Your task to perform on an android device: change the clock display to show seconds Image 0: 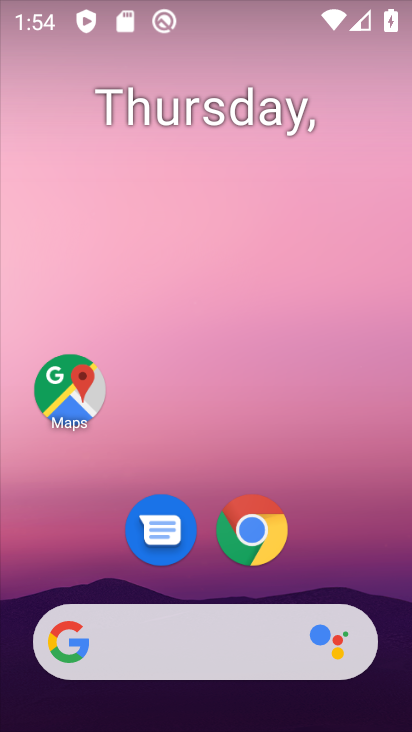
Step 0: drag from (210, 680) to (378, 0)
Your task to perform on an android device: change the clock display to show seconds Image 1: 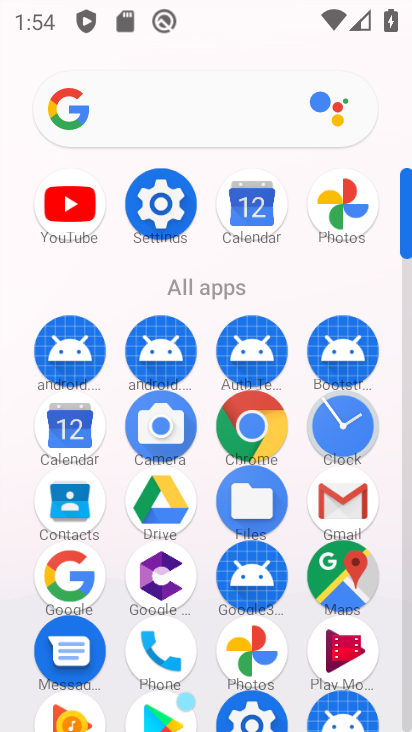
Step 1: click (335, 431)
Your task to perform on an android device: change the clock display to show seconds Image 2: 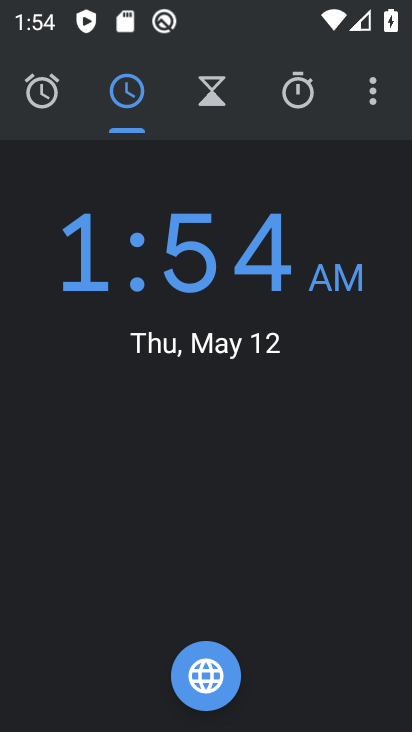
Step 2: click (378, 93)
Your task to perform on an android device: change the clock display to show seconds Image 3: 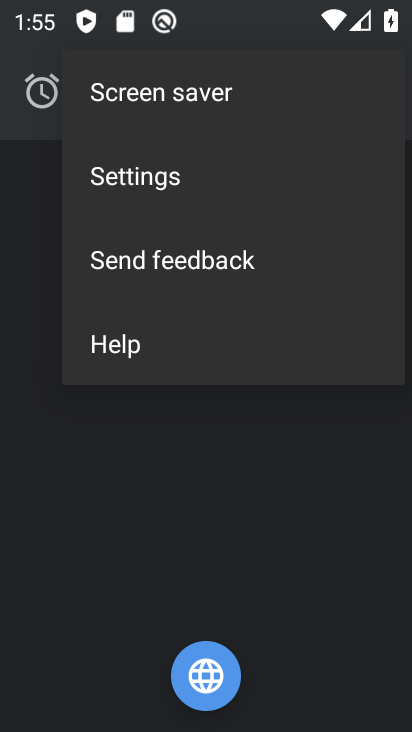
Step 3: click (243, 168)
Your task to perform on an android device: change the clock display to show seconds Image 4: 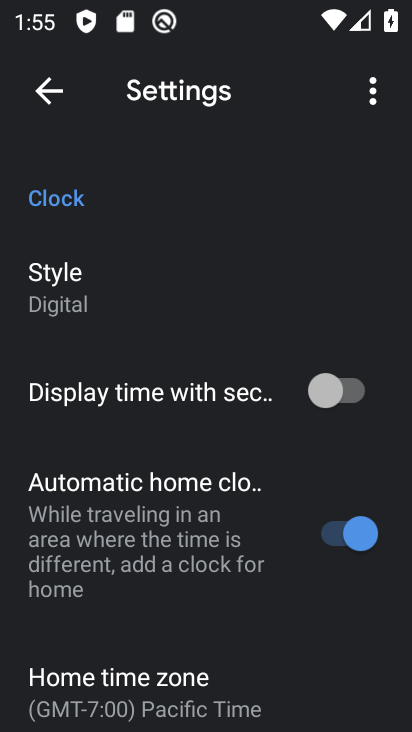
Step 4: click (346, 392)
Your task to perform on an android device: change the clock display to show seconds Image 5: 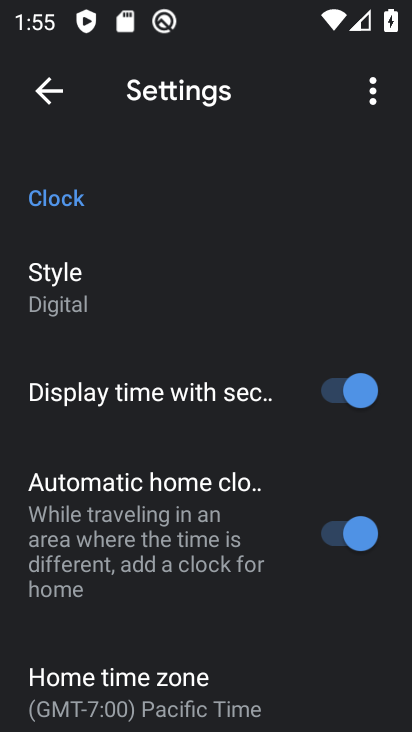
Step 5: task complete